Your task to perform on an android device: Open maps Image 0: 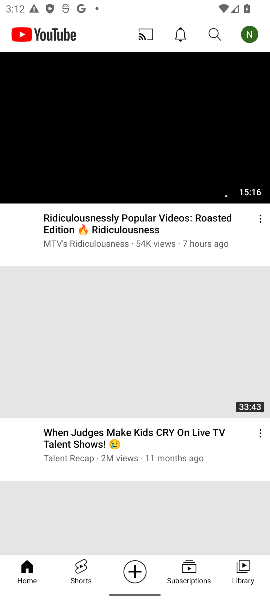
Step 0: press home button
Your task to perform on an android device: Open maps Image 1: 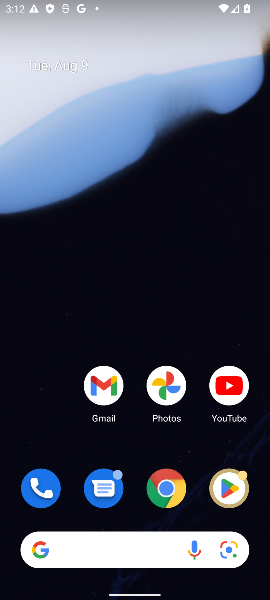
Step 1: drag from (195, 447) to (166, 173)
Your task to perform on an android device: Open maps Image 2: 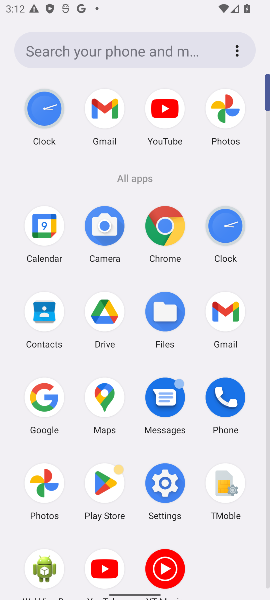
Step 2: click (98, 404)
Your task to perform on an android device: Open maps Image 3: 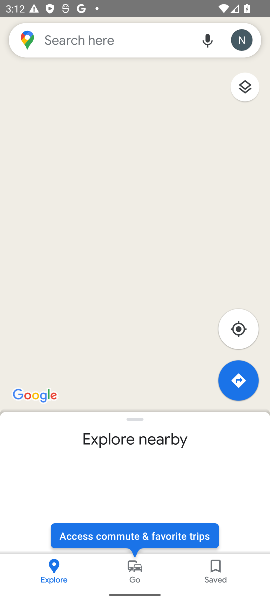
Step 3: task complete